Your task to perform on an android device: turn on data saver in the chrome app Image 0: 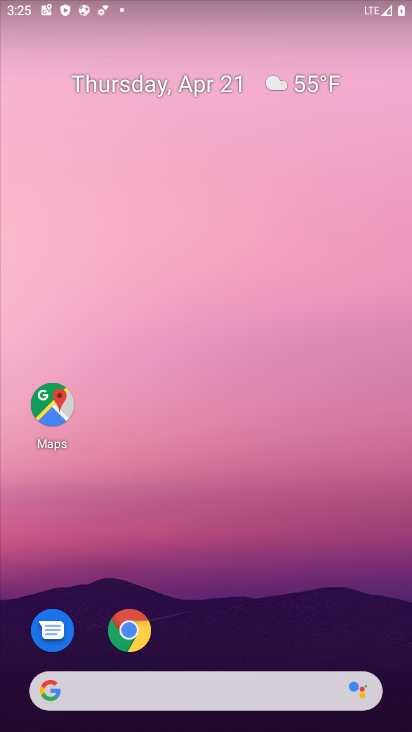
Step 0: click (128, 627)
Your task to perform on an android device: turn on data saver in the chrome app Image 1: 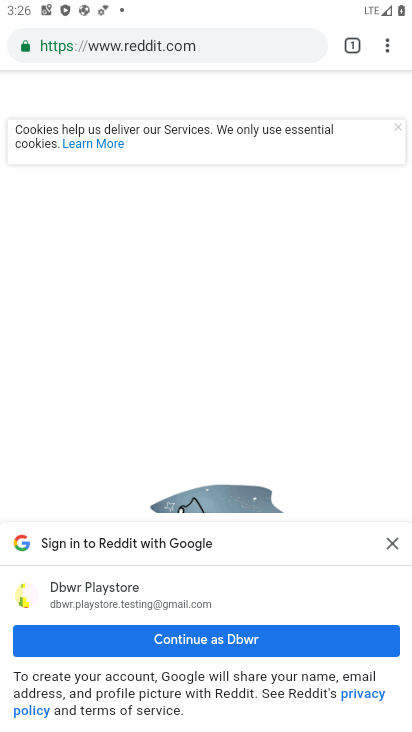
Step 1: drag from (385, 44) to (233, 544)
Your task to perform on an android device: turn on data saver in the chrome app Image 2: 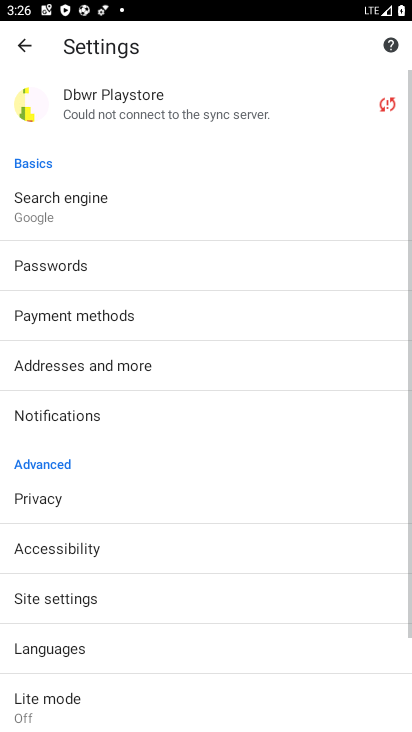
Step 2: click (53, 702)
Your task to perform on an android device: turn on data saver in the chrome app Image 3: 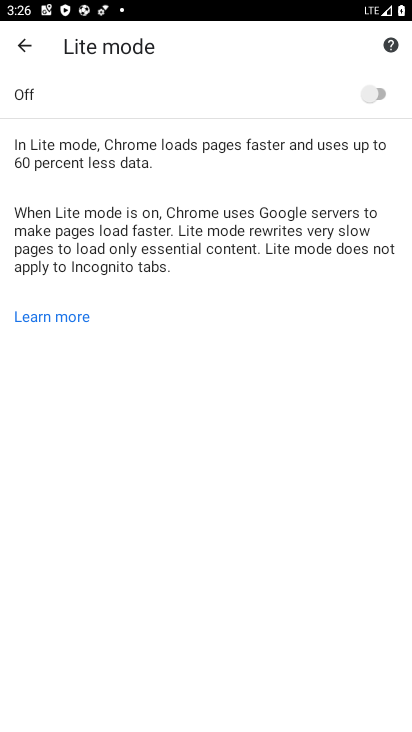
Step 3: click (371, 97)
Your task to perform on an android device: turn on data saver in the chrome app Image 4: 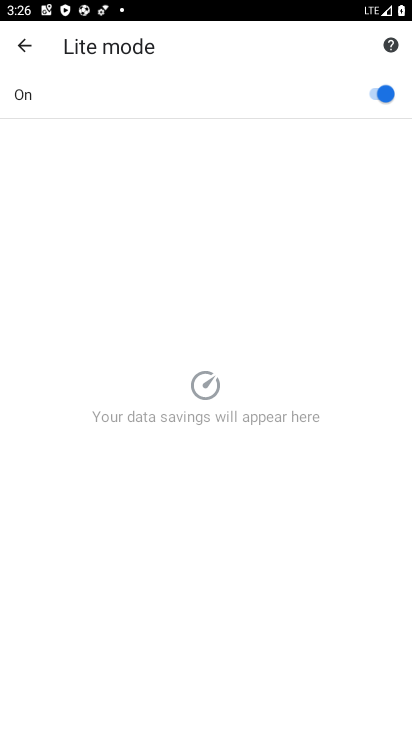
Step 4: task complete